Your task to perform on an android device: Open the calendar and show me this week's events? Image 0: 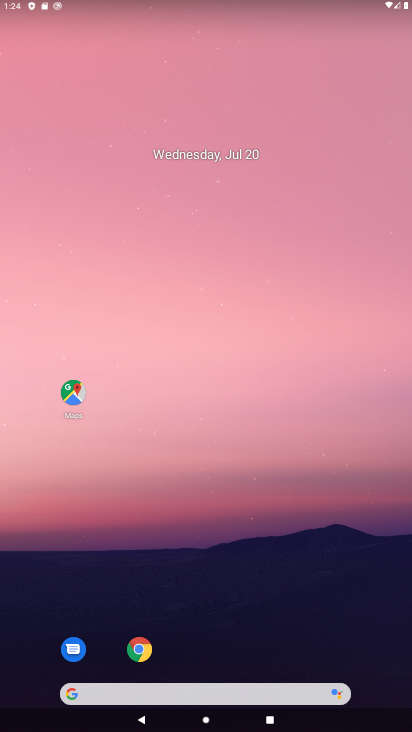
Step 0: drag from (220, 589) to (268, 201)
Your task to perform on an android device: Open the calendar and show me this week's events? Image 1: 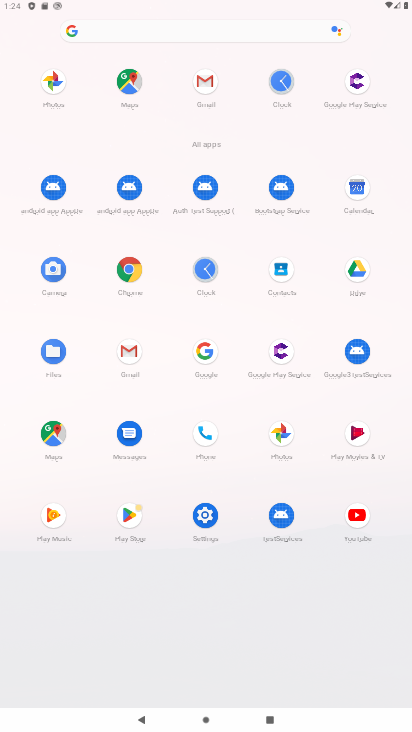
Step 1: click (352, 191)
Your task to perform on an android device: Open the calendar and show me this week's events? Image 2: 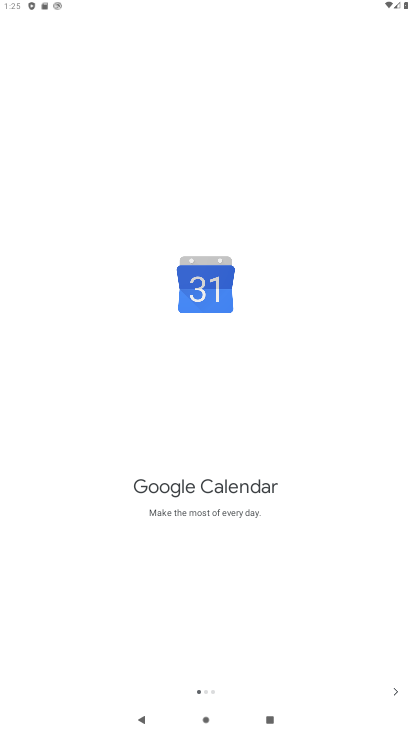
Step 2: click (388, 688)
Your task to perform on an android device: Open the calendar and show me this week's events? Image 3: 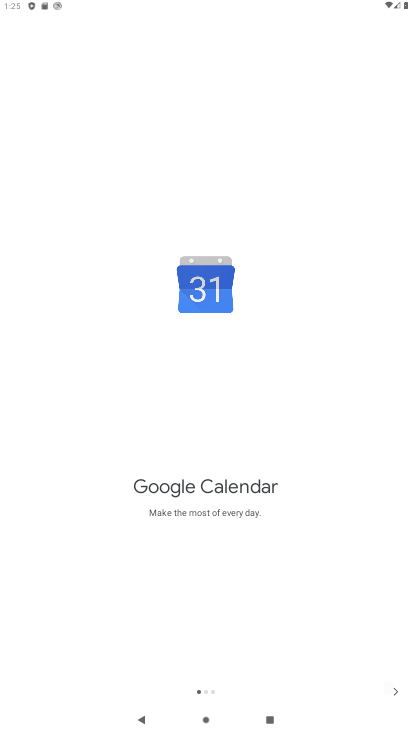
Step 3: click (388, 688)
Your task to perform on an android device: Open the calendar and show me this week's events? Image 4: 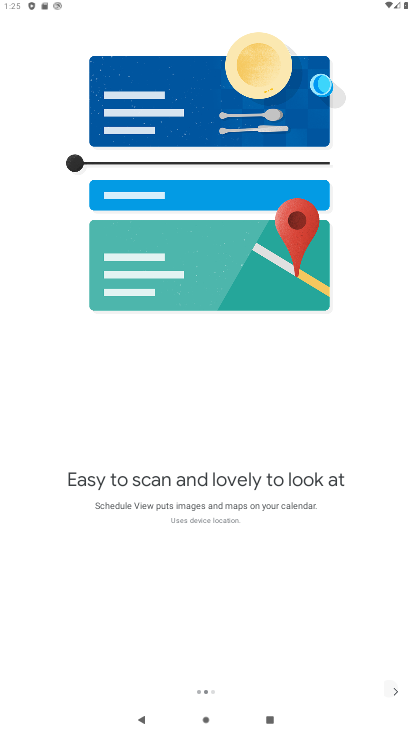
Step 4: click (388, 688)
Your task to perform on an android device: Open the calendar and show me this week's events? Image 5: 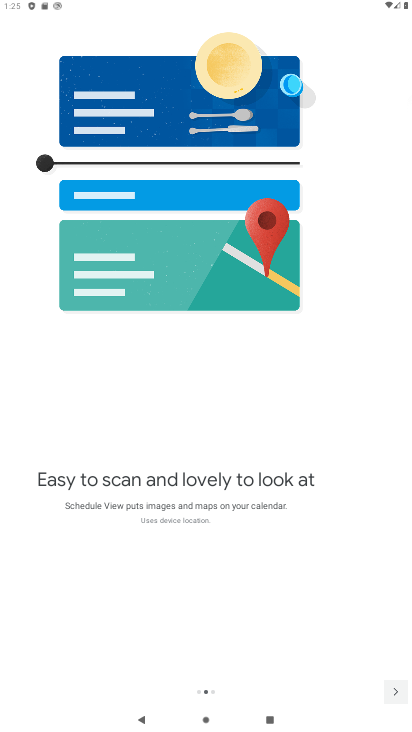
Step 5: click (388, 688)
Your task to perform on an android device: Open the calendar and show me this week's events? Image 6: 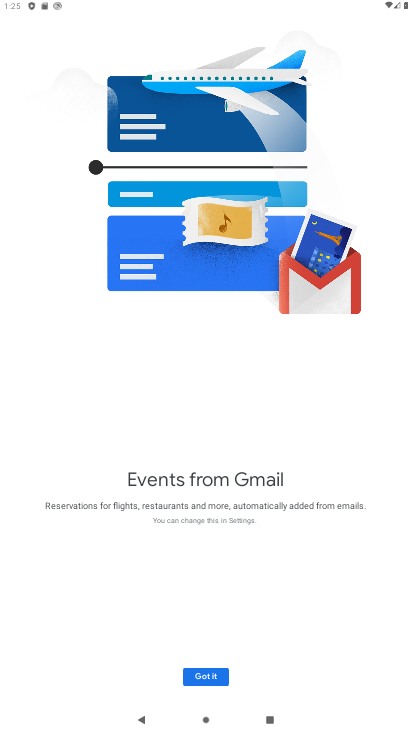
Step 6: click (397, 693)
Your task to perform on an android device: Open the calendar and show me this week's events? Image 7: 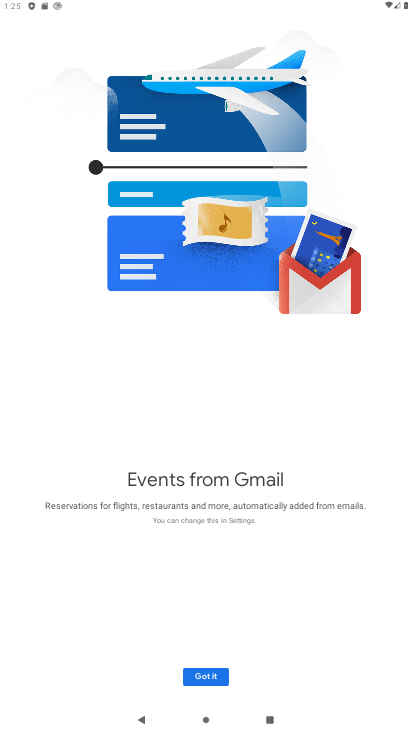
Step 7: click (216, 673)
Your task to perform on an android device: Open the calendar and show me this week's events? Image 8: 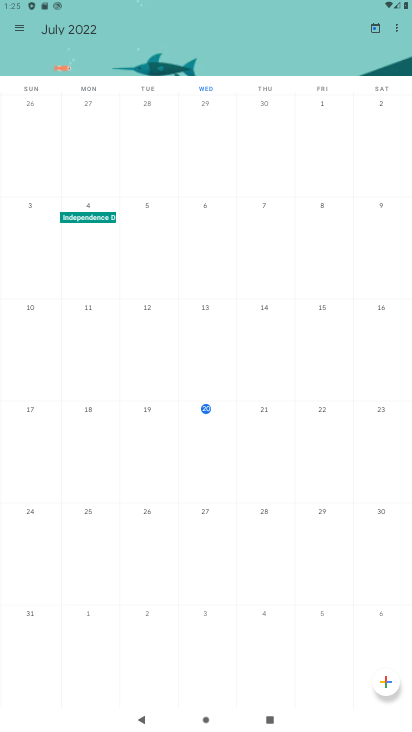
Step 8: task complete